Your task to perform on an android device: turn vacation reply on in the gmail app Image 0: 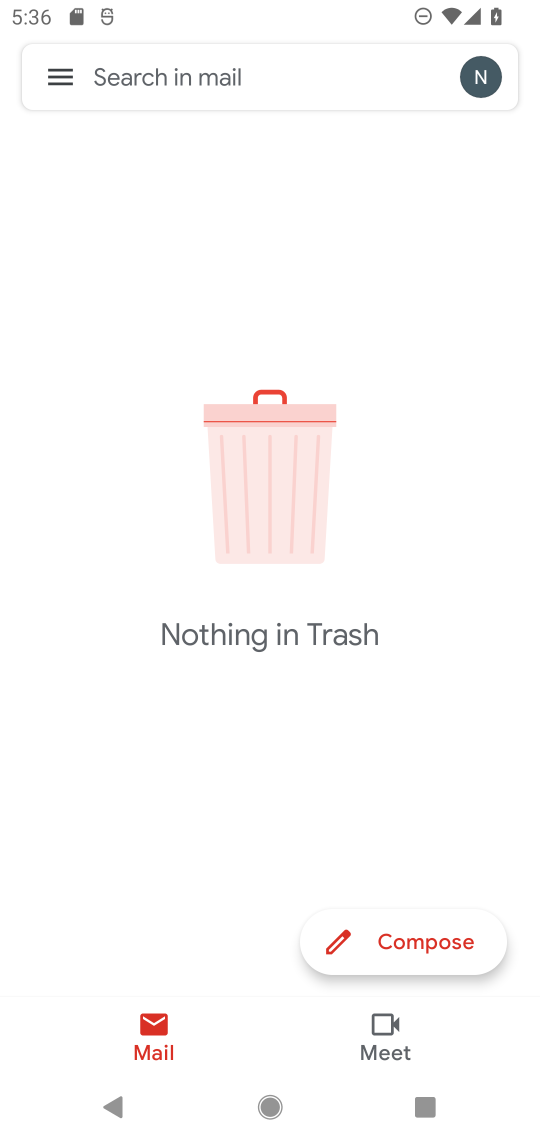
Step 0: press home button
Your task to perform on an android device: turn vacation reply on in the gmail app Image 1: 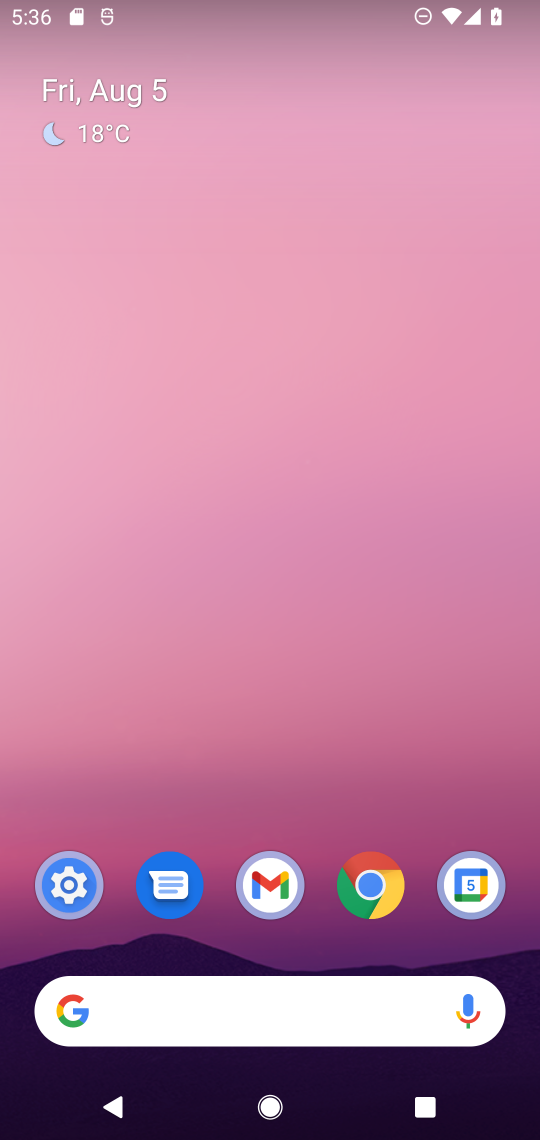
Step 1: drag from (318, 824) to (297, 72)
Your task to perform on an android device: turn vacation reply on in the gmail app Image 2: 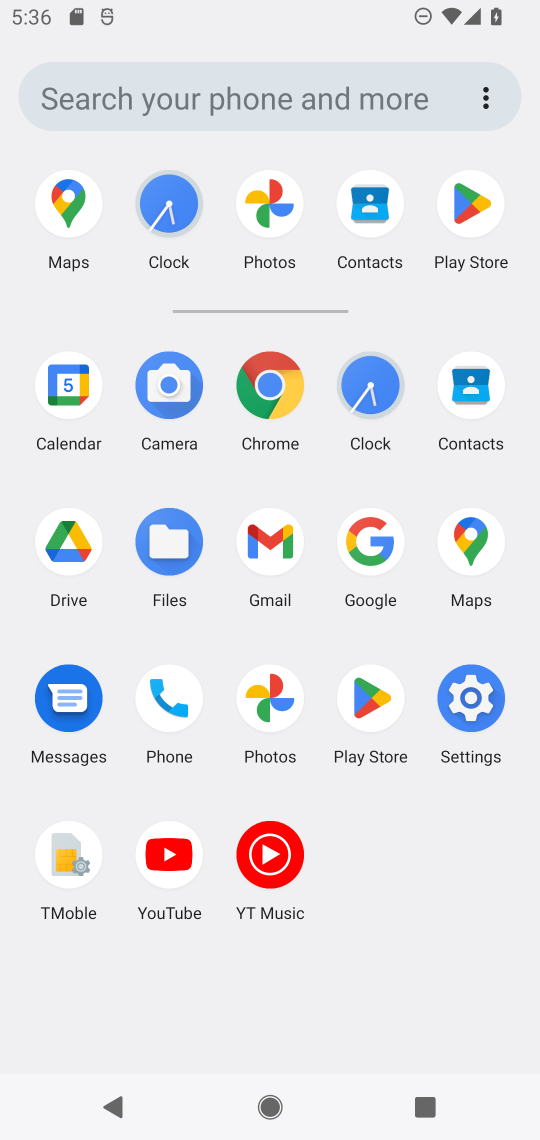
Step 2: click (272, 539)
Your task to perform on an android device: turn vacation reply on in the gmail app Image 3: 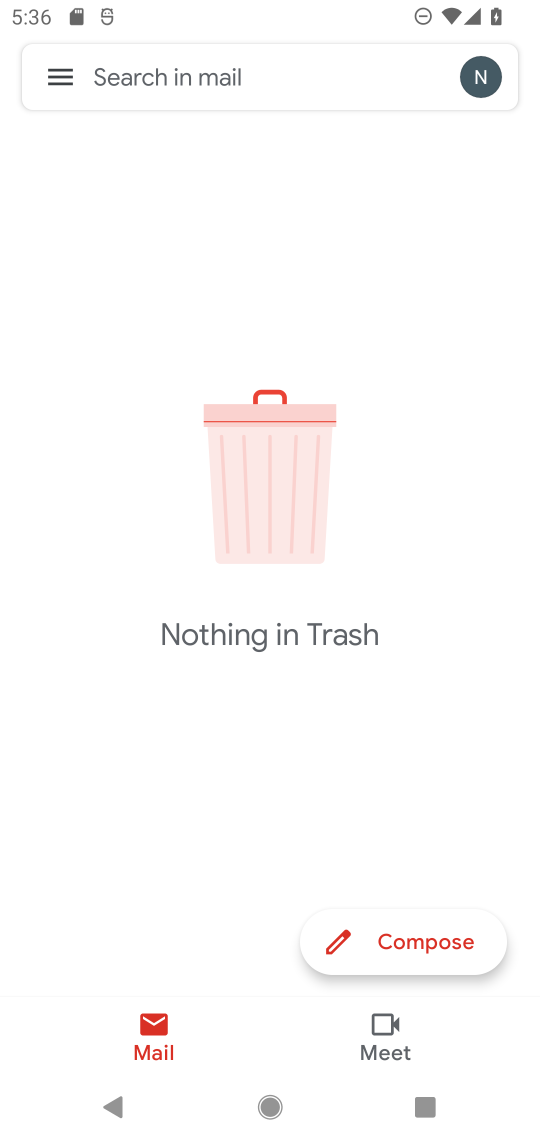
Step 3: click (59, 75)
Your task to perform on an android device: turn vacation reply on in the gmail app Image 4: 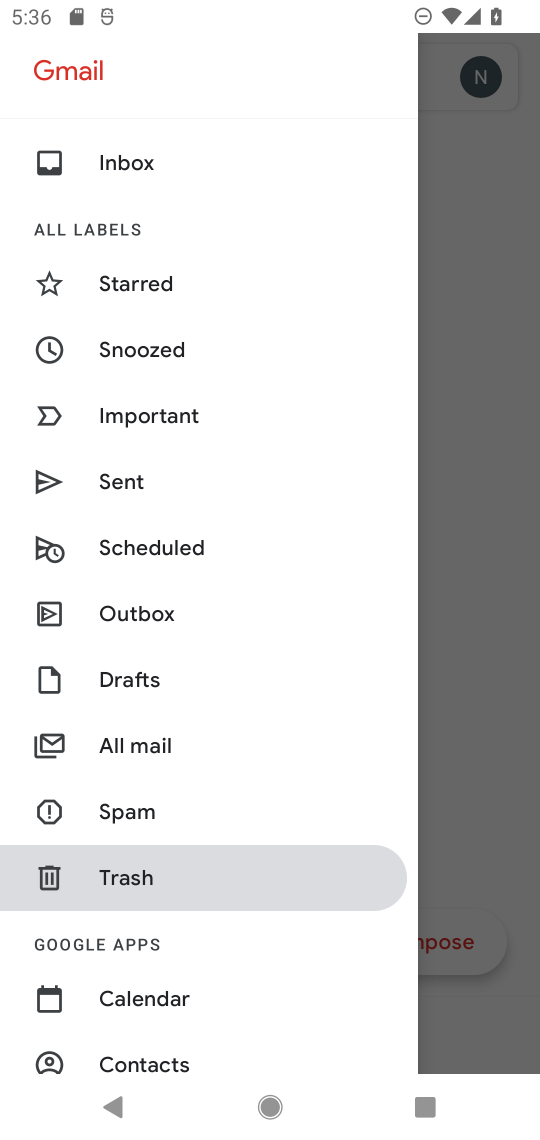
Step 4: drag from (189, 992) to (197, 556)
Your task to perform on an android device: turn vacation reply on in the gmail app Image 5: 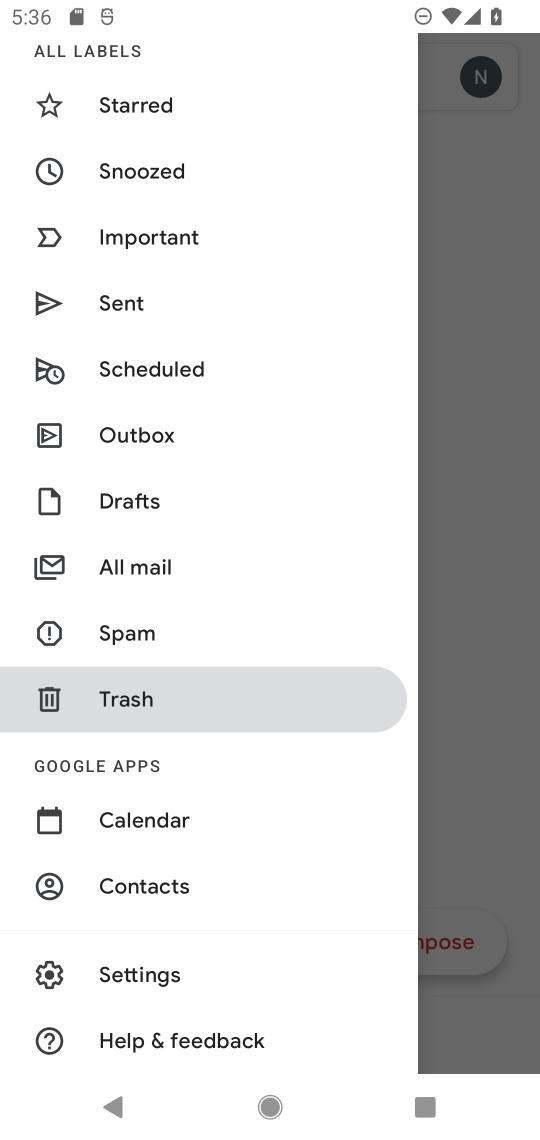
Step 5: click (156, 959)
Your task to perform on an android device: turn vacation reply on in the gmail app Image 6: 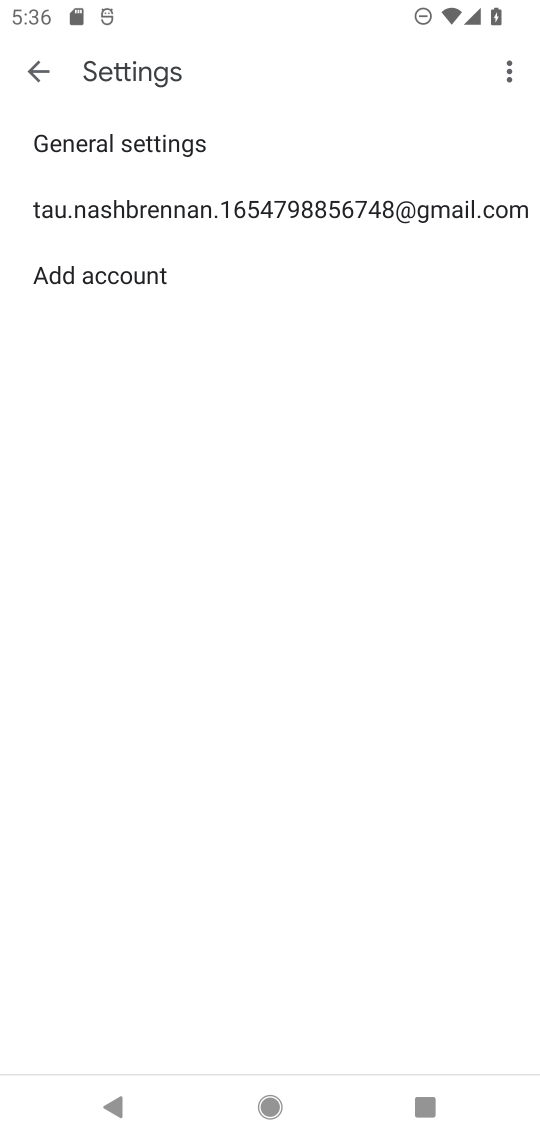
Step 6: click (240, 210)
Your task to perform on an android device: turn vacation reply on in the gmail app Image 7: 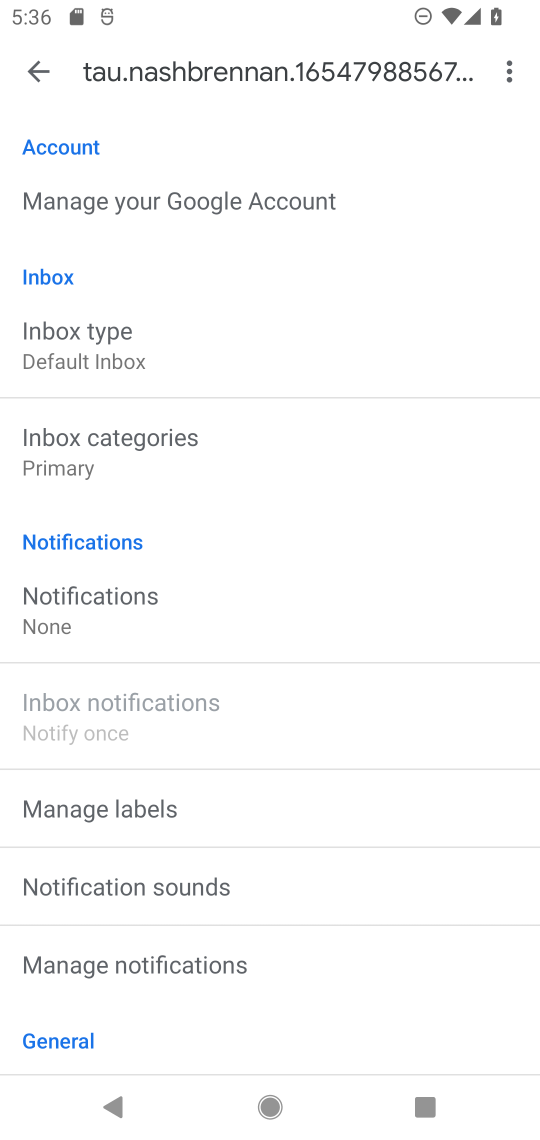
Step 7: drag from (143, 954) to (133, 563)
Your task to perform on an android device: turn vacation reply on in the gmail app Image 8: 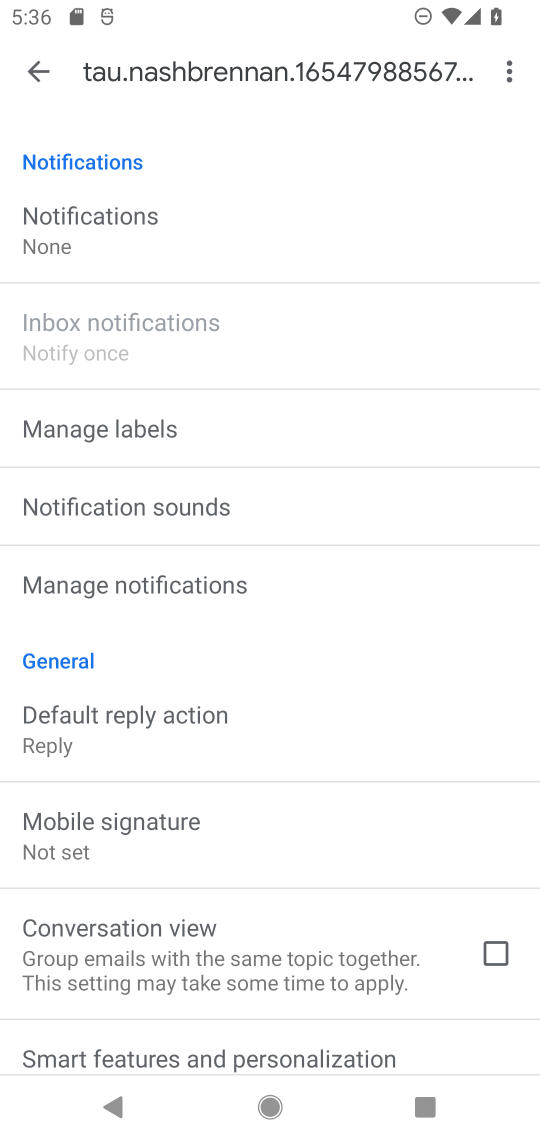
Step 8: drag from (213, 966) to (218, 645)
Your task to perform on an android device: turn vacation reply on in the gmail app Image 9: 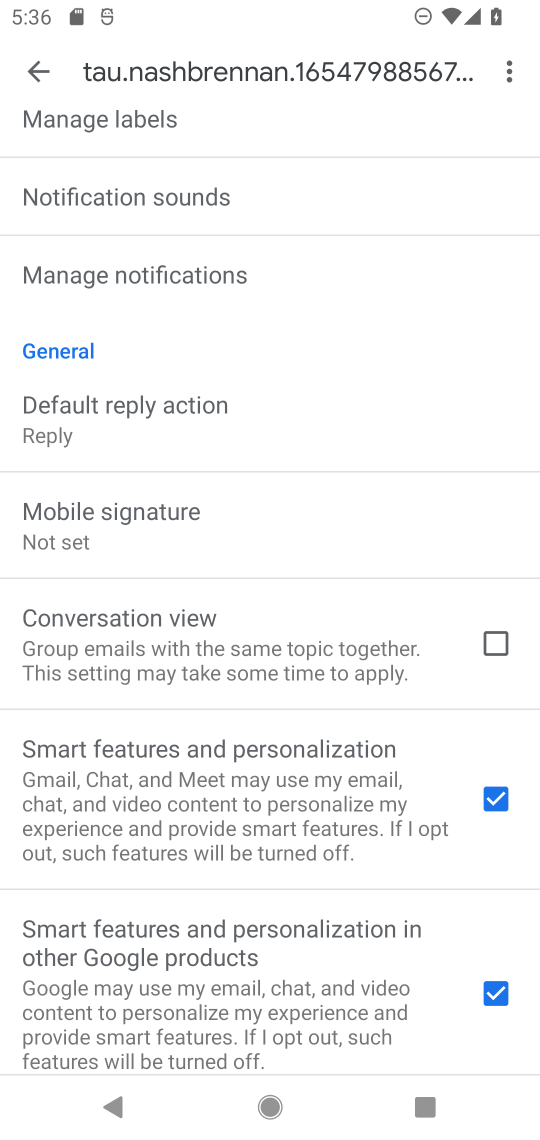
Step 9: drag from (202, 1011) to (202, 704)
Your task to perform on an android device: turn vacation reply on in the gmail app Image 10: 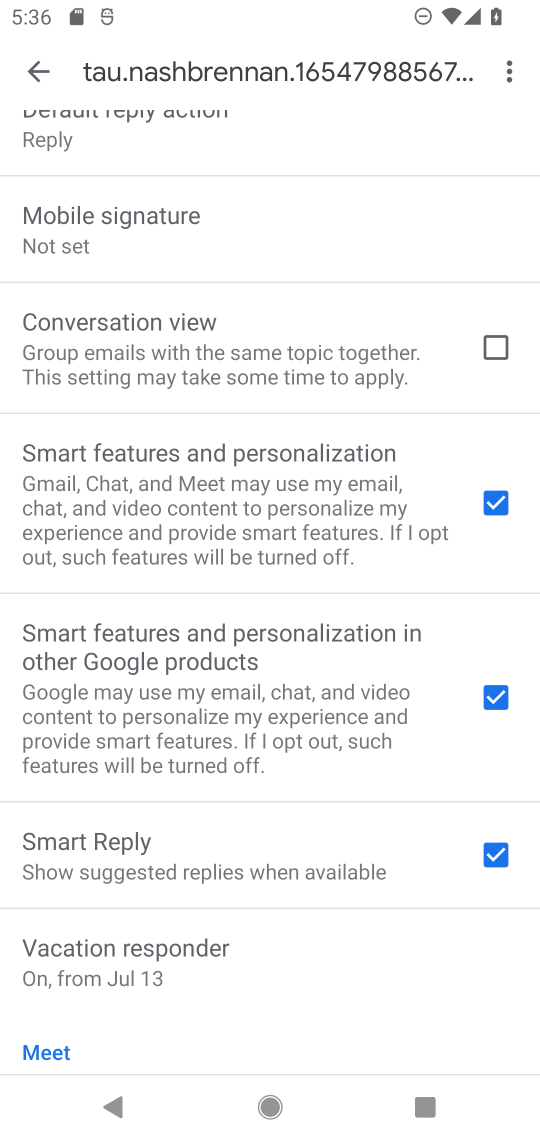
Step 10: click (151, 949)
Your task to perform on an android device: turn vacation reply on in the gmail app Image 11: 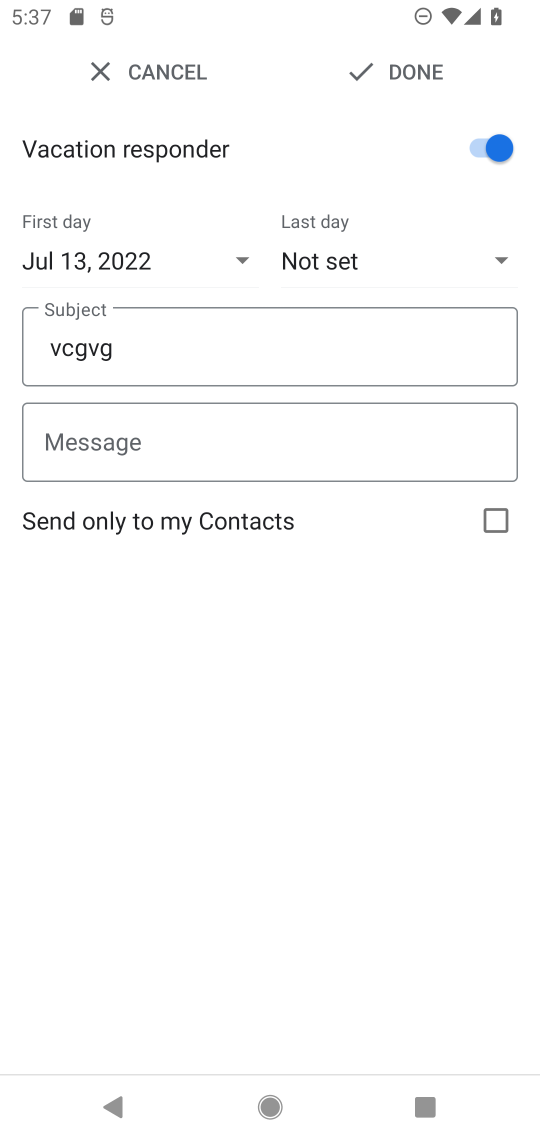
Step 11: task complete